Your task to perform on an android device: find which apps use the phone's location Image 0: 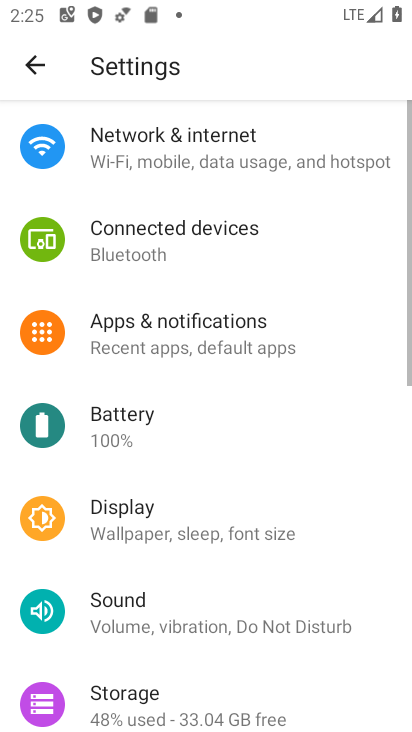
Step 0: drag from (212, 598) to (241, 208)
Your task to perform on an android device: find which apps use the phone's location Image 1: 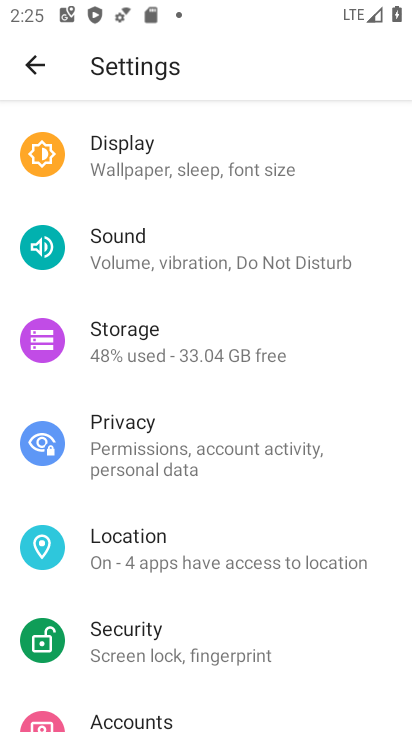
Step 1: click (168, 558)
Your task to perform on an android device: find which apps use the phone's location Image 2: 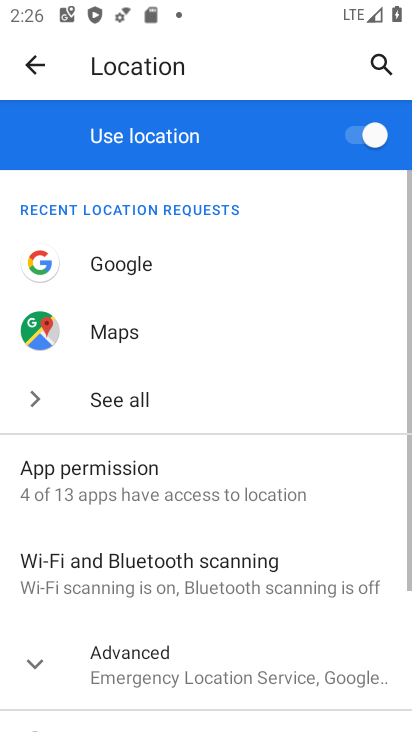
Step 2: click (120, 472)
Your task to perform on an android device: find which apps use the phone's location Image 3: 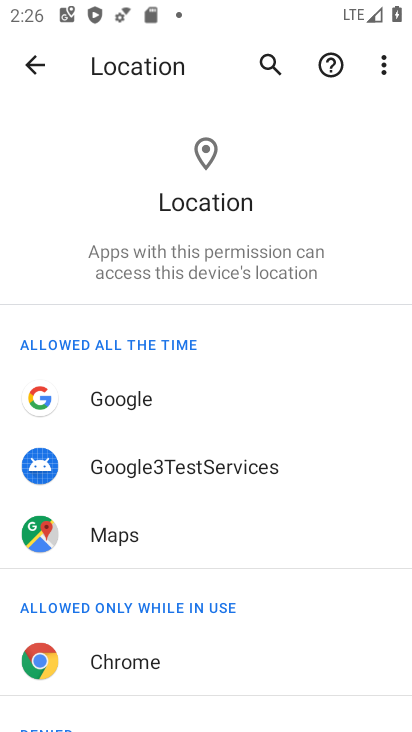
Step 3: task complete